Your task to perform on an android device: Open accessibility settings Image 0: 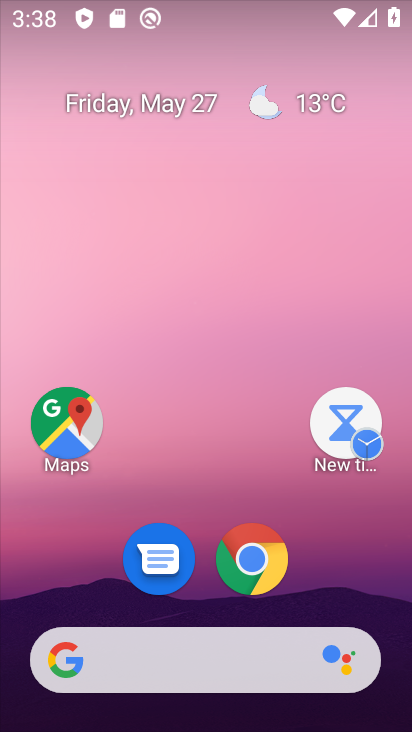
Step 0: drag from (206, 510) to (101, 24)
Your task to perform on an android device: Open accessibility settings Image 1: 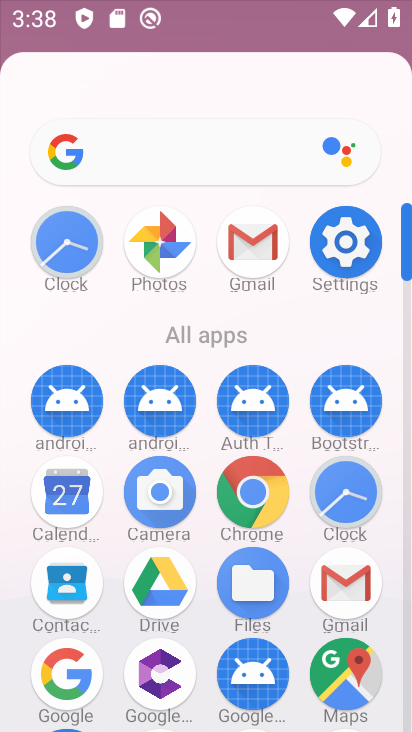
Step 1: drag from (264, 611) to (137, 22)
Your task to perform on an android device: Open accessibility settings Image 2: 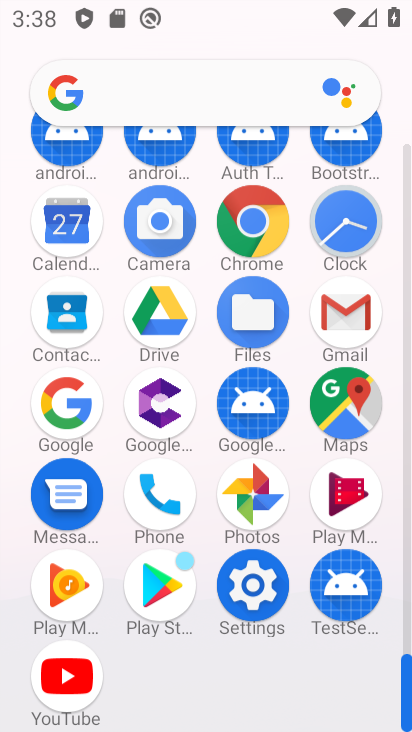
Step 2: drag from (193, 229) to (177, 10)
Your task to perform on an android device: Open accessibility settings Image 3: 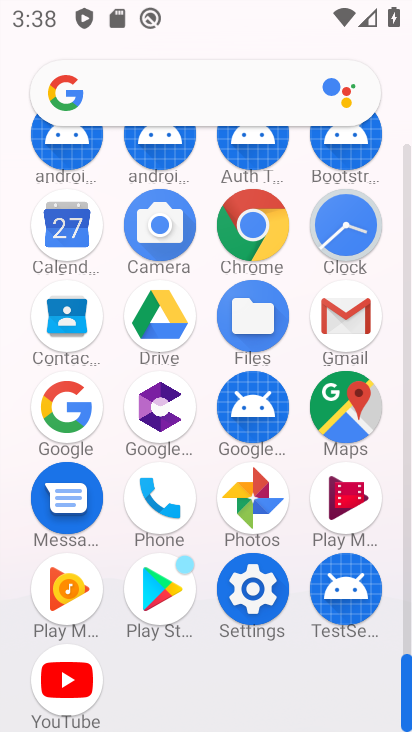
Step 3: click (349, 181)
Your task to perform on an android device: Open accessibility settings Image 4: 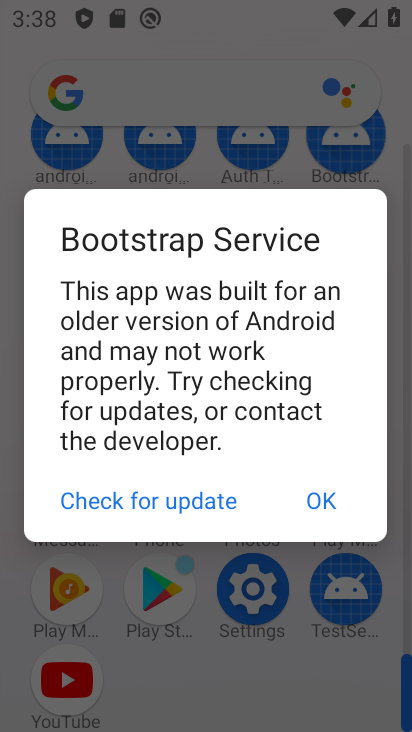
Step 4: click (243, 569)
Your task to perform on an android device: Open accessibility settings Image 5: 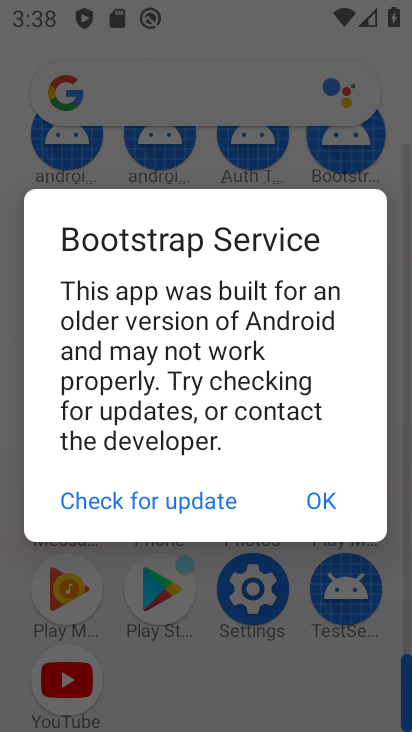
Step 5: click (245, 567)
Your task to perform on an android device: Open accessibility settings Image 6: 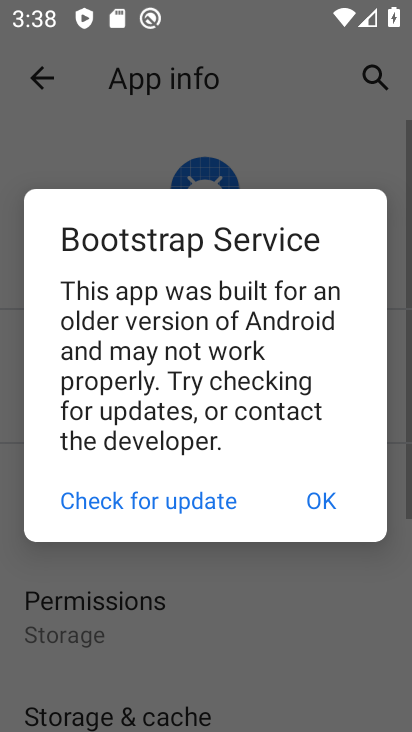
Step 6: click (253, 583)
Your task to perform on an android device: Open accessibility settings Image 7: 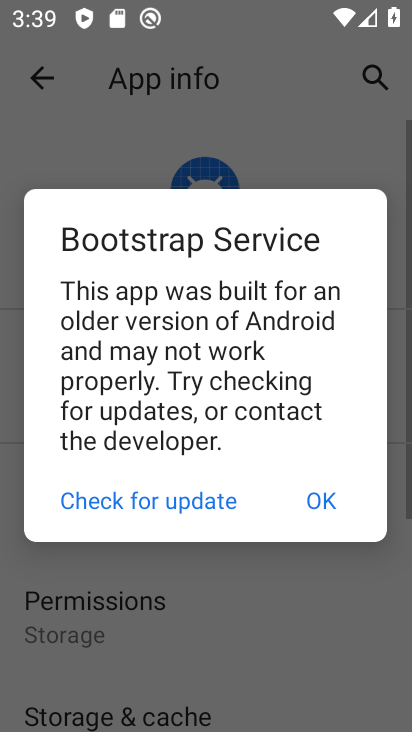
Step 7: click (254, 588)
Your task to perform on an android device: Open accessibility settings Image 8: 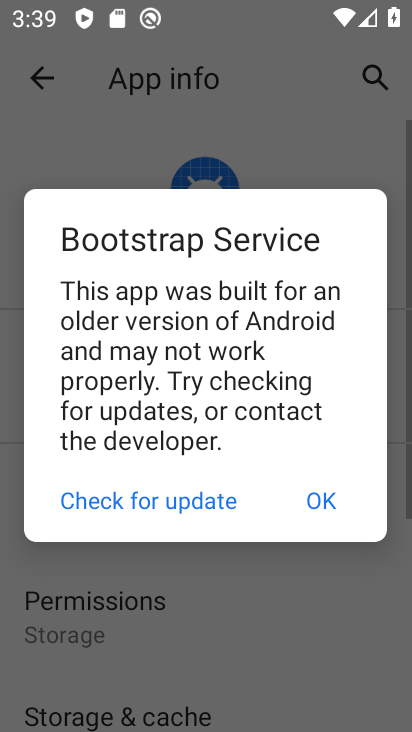
Step 8: click (314, 512)
Your task to perform on an android device: Open accessibility settings Image 9: 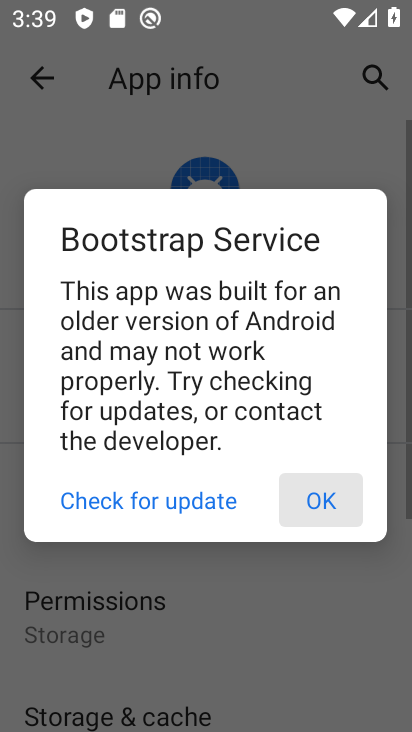
Step 9: click (316, 511)
Your task to perform on an android device: Open accessibility settings Image 10: 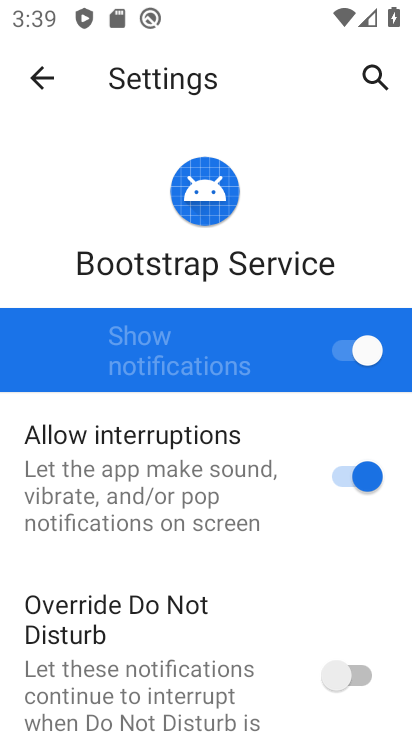
Step 10: click (29, 75)
Your task to perform on an android device: Open accessibility settings Image 11: 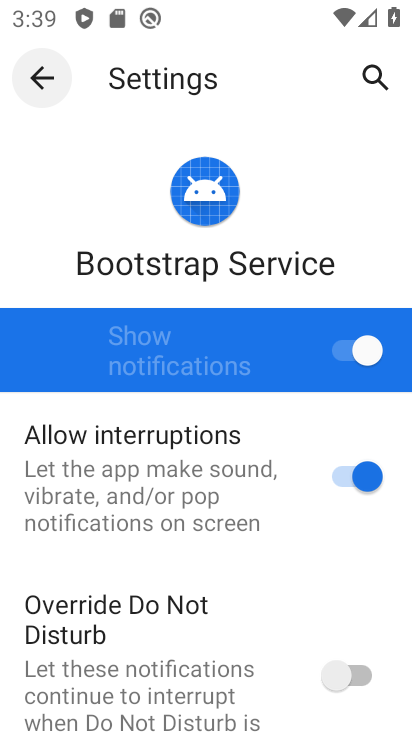
Step 11: click (30, 78)
Your task to perform on an android device: Open accessibility settings Image 12: 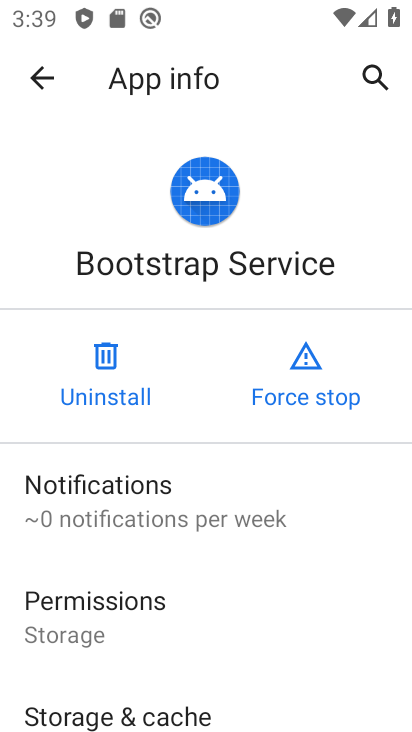
Step 12: click (31, 61)
Your task to perform on an android device: Open accessibility settings Image 13: 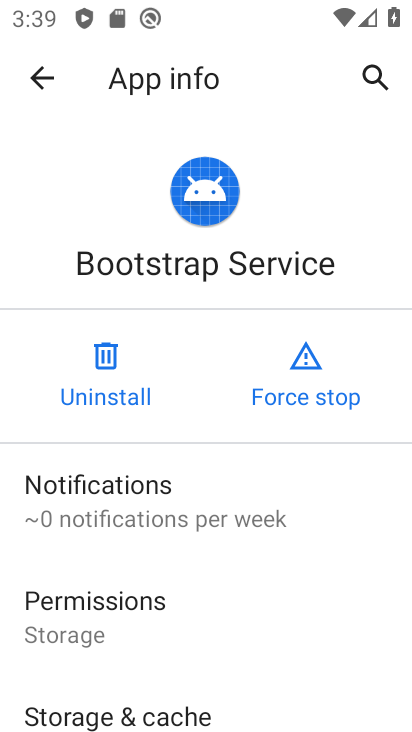
Step 13: click (33, 64)
Your task to perform on an android device: Open accessibility settings Image 14: 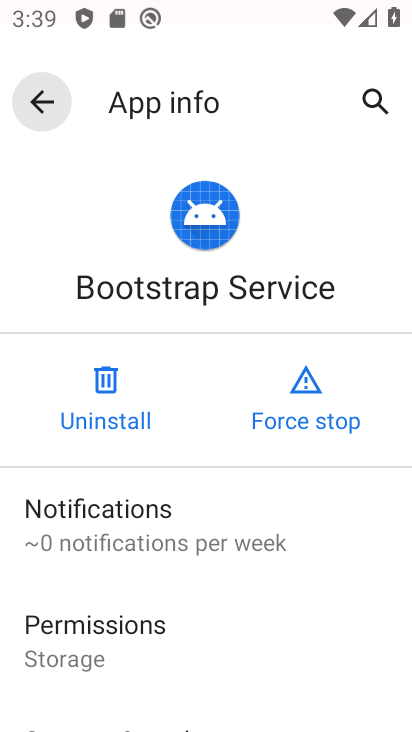
Step 14: click (57, 101)
Your task to perform on an android device: Open accessibility settings Image 15: 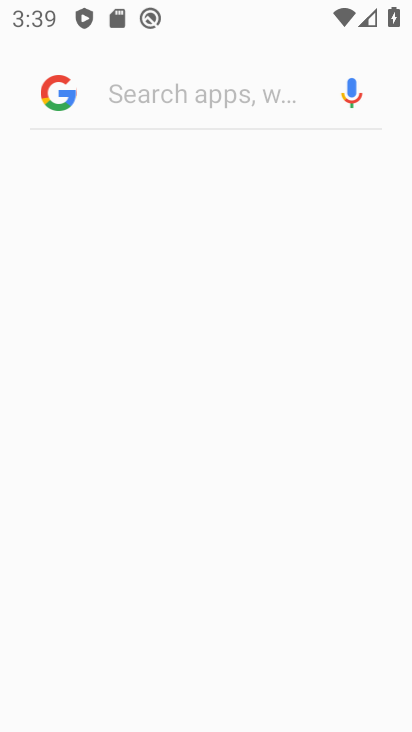
Step 15: click (30, 79)
Your task to perform on an android device: Open accessibility settings Image 16: 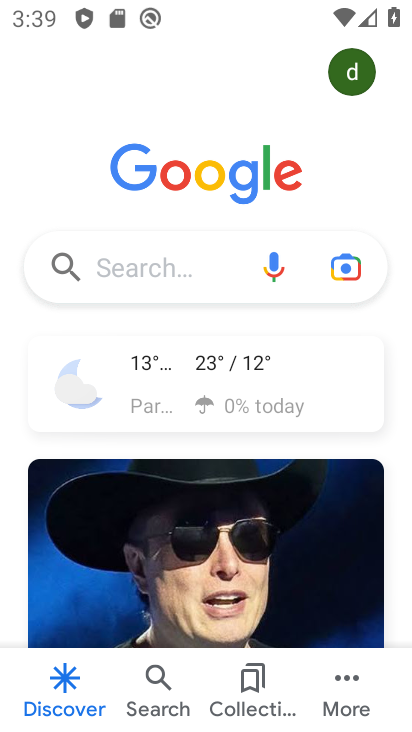
Step 16: press back button
Your task to perform on an android device: Open accessibility settings Image 17: 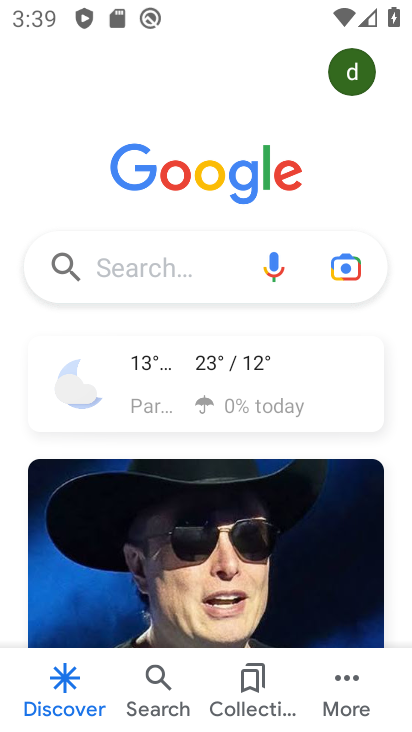
Step 17: press back button
Your task to perform on an android device: Open accessibility settings Image 18: 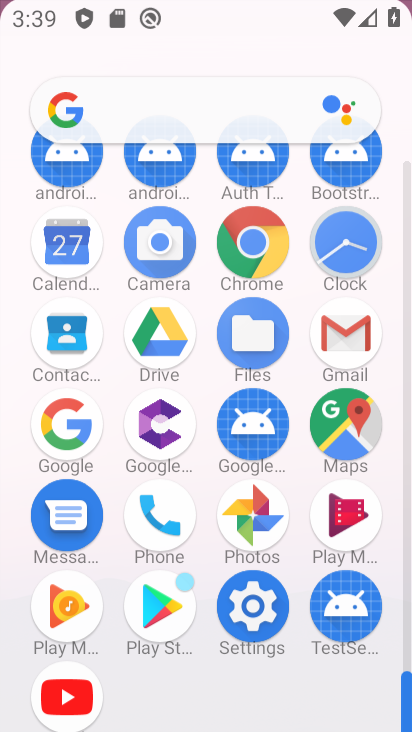
Step 18: press back button
Your task to perform on an android device: Open accessibility settings Image 19: 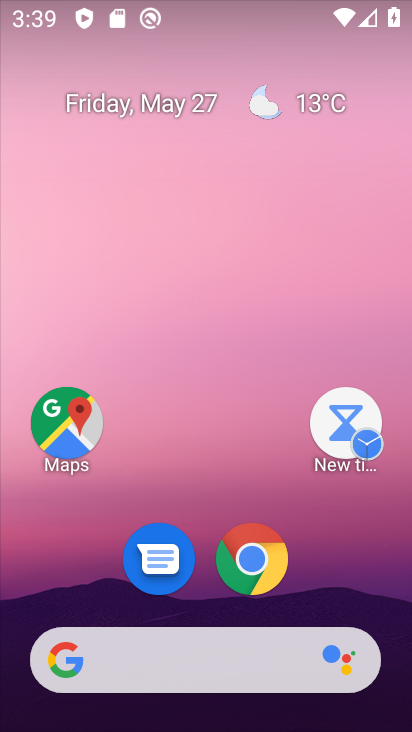
Step 19: drag from (252, 642) to (87, 56)
Your task to perform on an android device: Open accessibility settings Image 20: 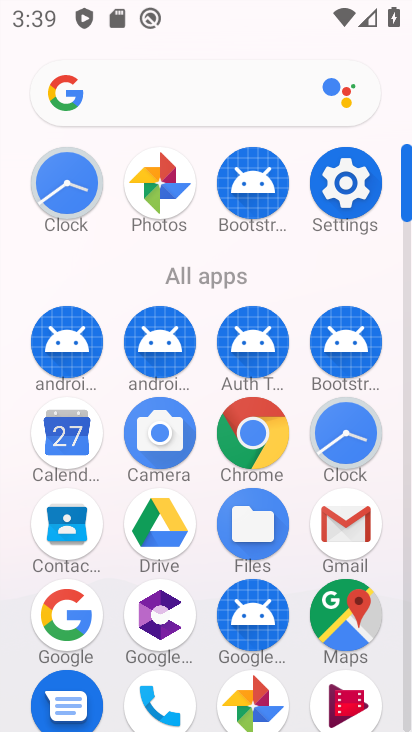
Step 20: click (337, 191)
Your task to perform on an android device: Open accessibility settings Image 21: 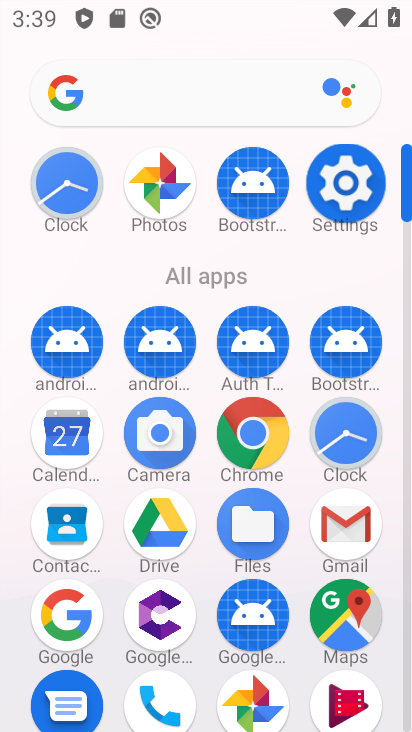
Step 21: click (337, 191)
Your task to perform on an android device: Open accessibility settings Image 22: 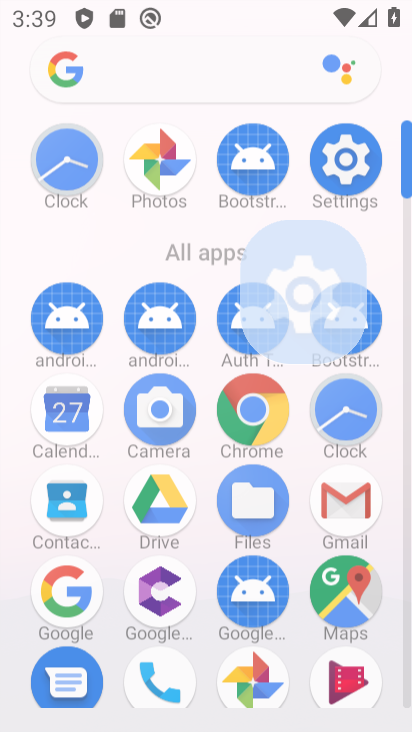
Step 22: click (337, 191)
Your task to perform on an android device: Open accessibility settings Image 23: 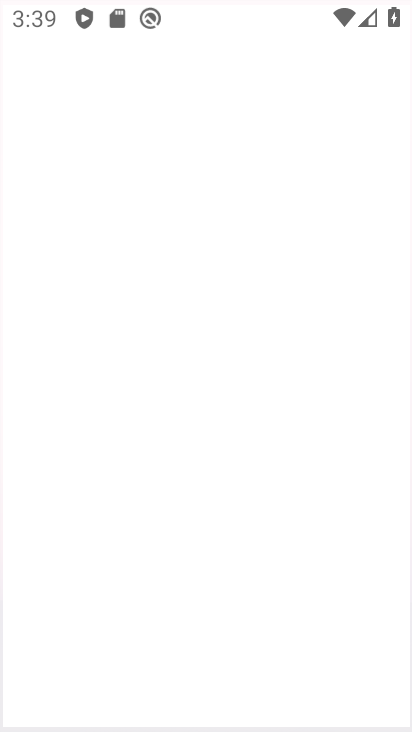
Step 23: click (337, 191)
Your task to perform on an android device: Open accessibility settings Image 24: 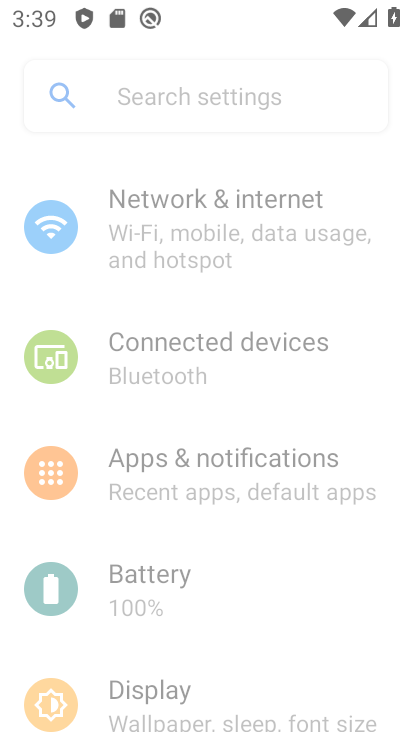
Step 24: click (337, 191)
Your task to perform on an android device: Open accessibility settings Image 25: 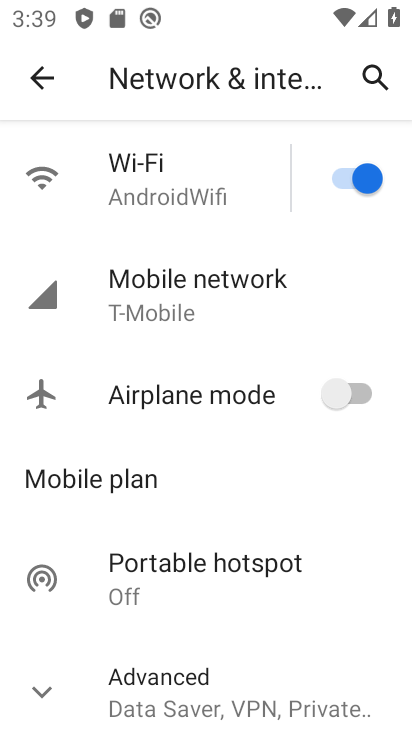
Step 25: drag from (176, 323) to (143, 8)
Your task to perform on an android device: Open accessibility settings Image 26: 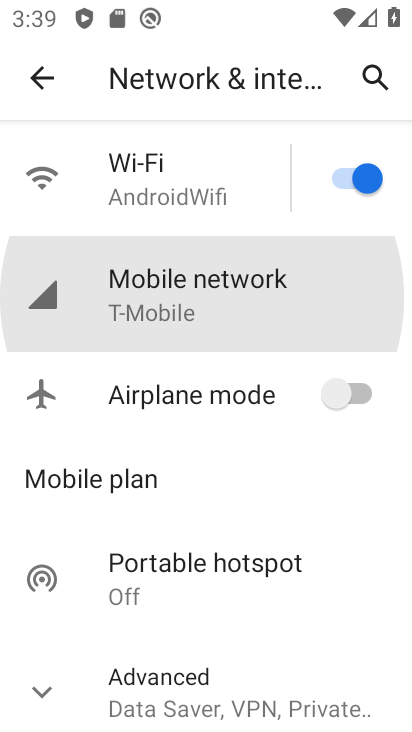
Step 26: drag from (216, 386) to (121, 41)
Your task to perform on an android device: Open accessibility settings Image 27: 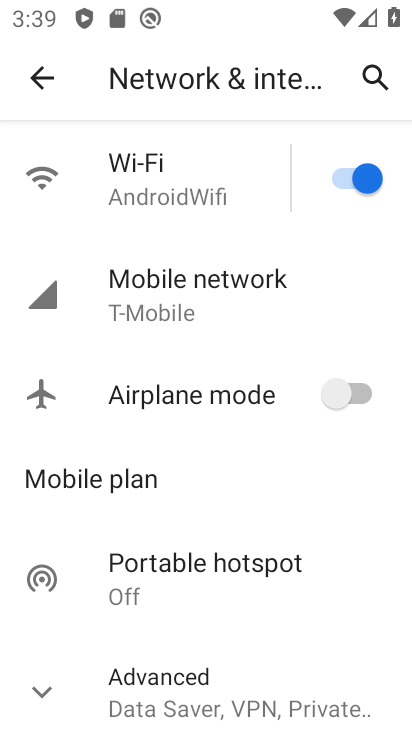
Step 27: drag from (315, 674) to (184, 136)
Your task to perform on an android device: Open accessibility settings Image 28: 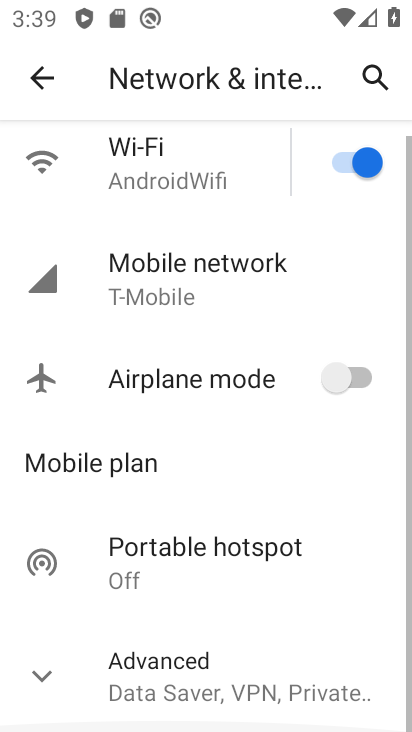
Step 28: drag from (237, 540) to (195, 31)
Your task to perform on an android device: Open accessibility settings Image 29: 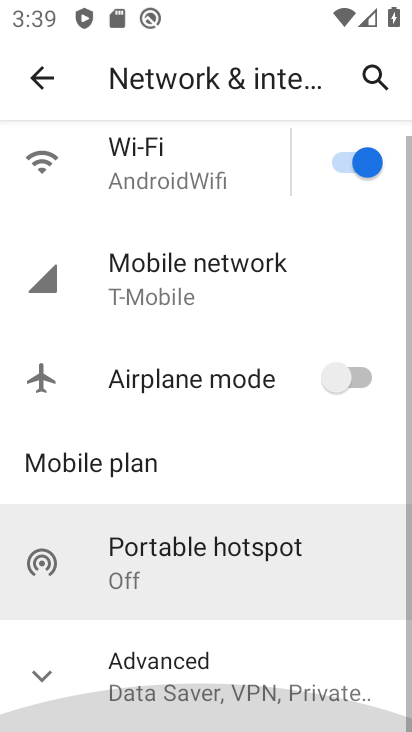
Step 29: drag from (226, 420) to (184, 83)
Your task to perform on an android device: Open accessibility settings Image 30: 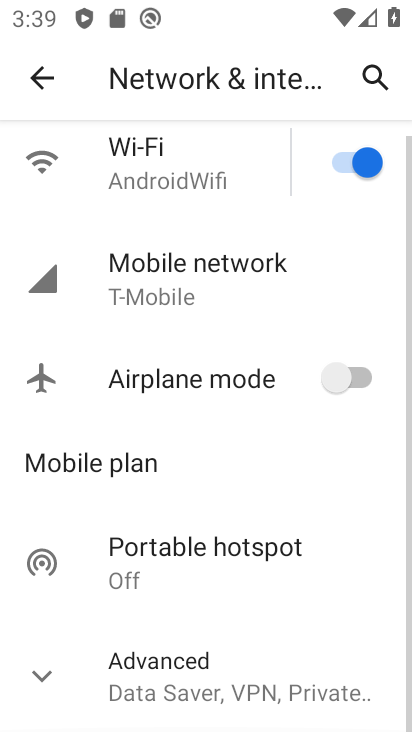
Step 30: drag from (249, 488) to (170, 38)
Your task to perform on an android device: Open accessibility settings Image 31: 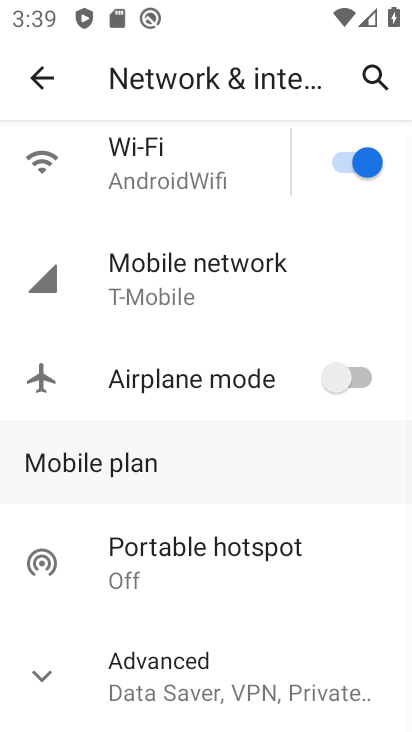
Step 31: drag from (160, 71) to (150, 4)
Your task to perform on an android device: Open accessibility settings Image 32: 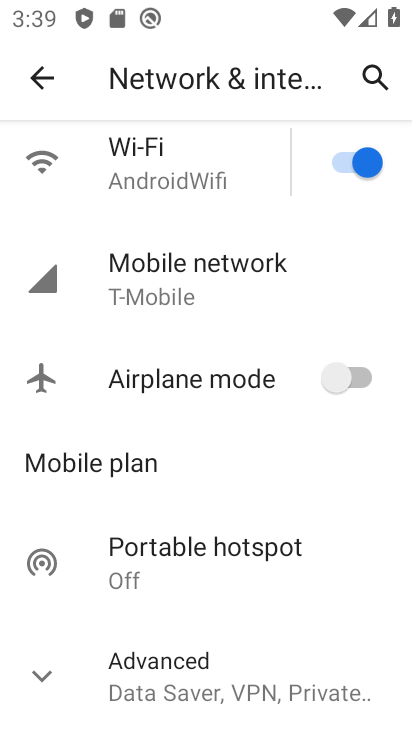
Step 32: drag from (131, 344) to (92, 64)
Your task to perform on an android device: Open accessibility settings Image 33: 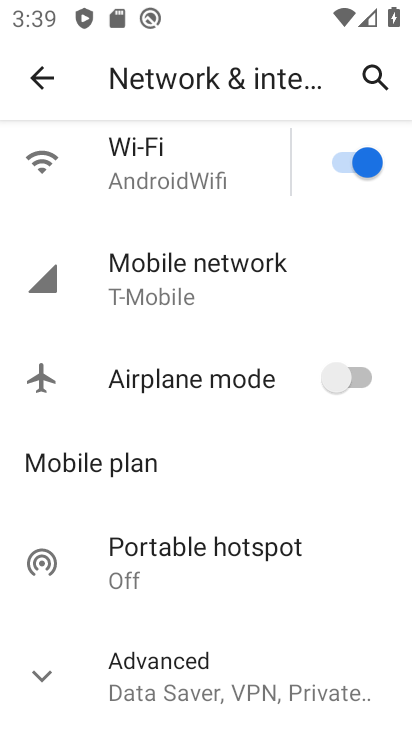
Step 33: drag from (197, 218) to (177, 74)
Your task to perform on an android device: Open accessibility settings Image 34: 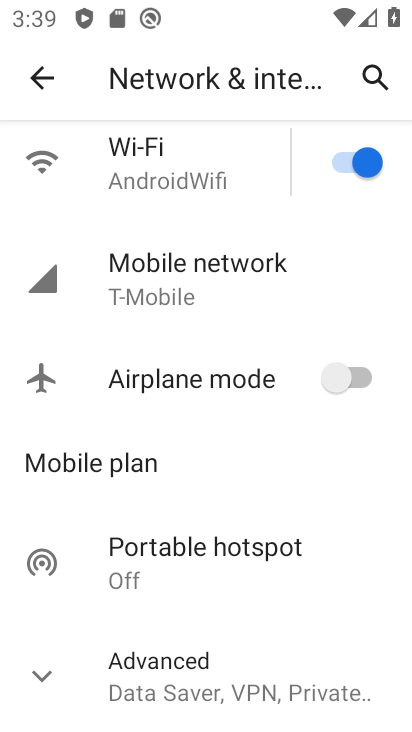
Step 34: drag from (203, 428) to (151, 0)
Your task to perform on an android device: Open accessibility settings Image 35: 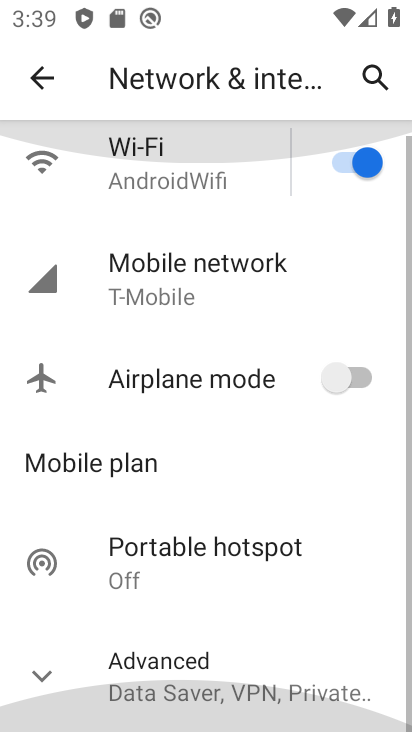
Step 35: drag from (192, 461) to (177, 147)
Your task to perform on an android device: Open accessibility settings Image 36: 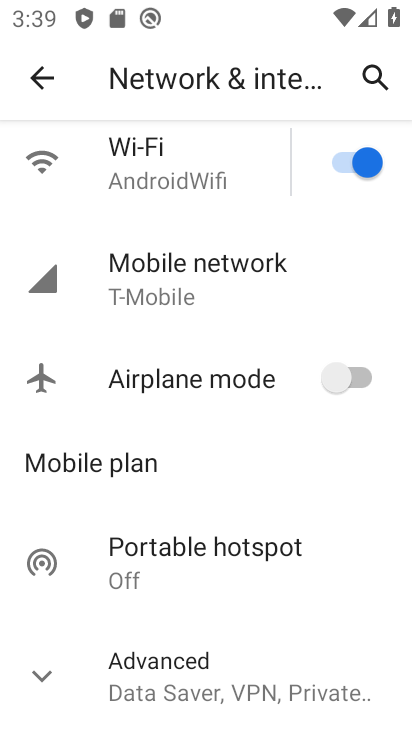
Step 36: click (38, 88)
Your task to perform on an android device: Open accessibility settings Image 37: 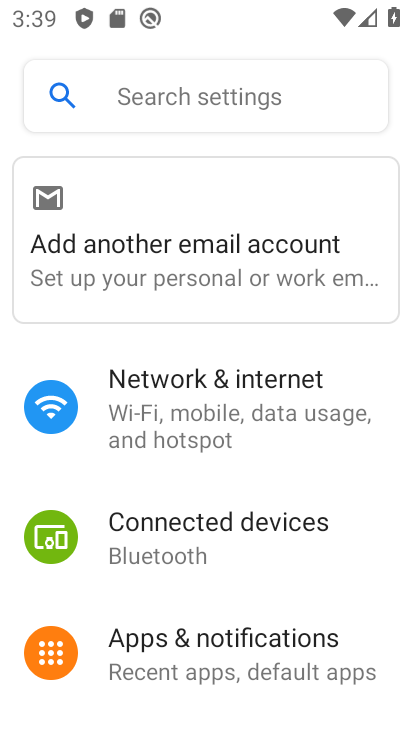
Step 37: task complete